Your task to perform on an android device: Go to network settings Image 0: 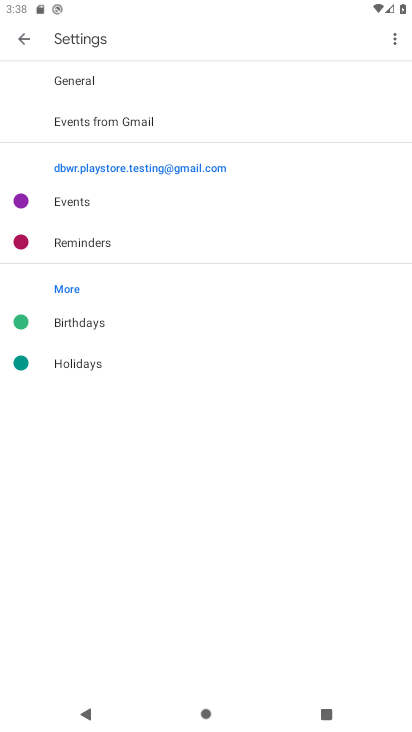
Step 0: press home button
Your task to perform on an android device: Go to network settings Image 1: 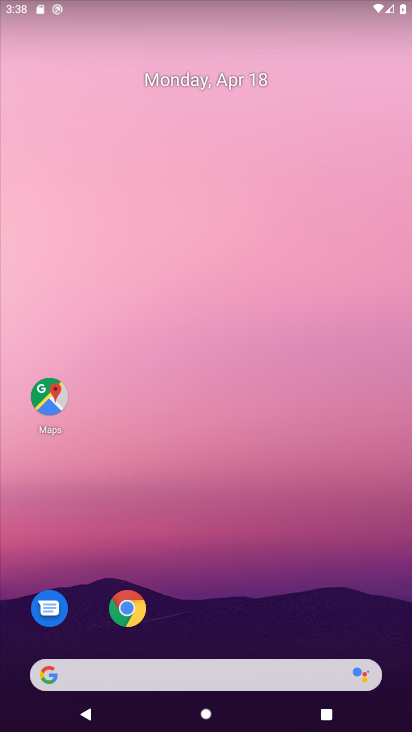
Step 1: drag from (332, 612) to (273, 138)
Your task to perform on an android device: Go to network settings Image 2: 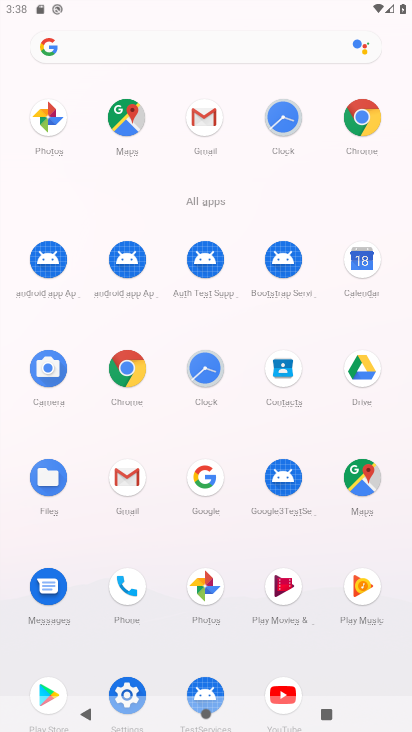
Step 2: click (119, 682)
Your task to perform on an android device: Go to network settings Image 3: 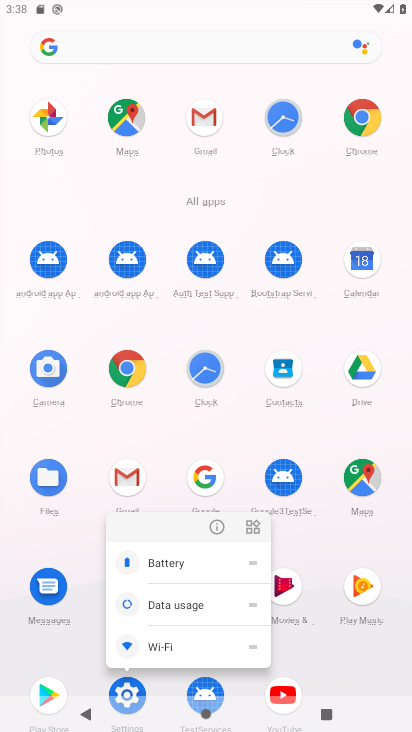
Step 3: click (121, 682)
Your task to perform on an android device: Go to network settings Image 4: 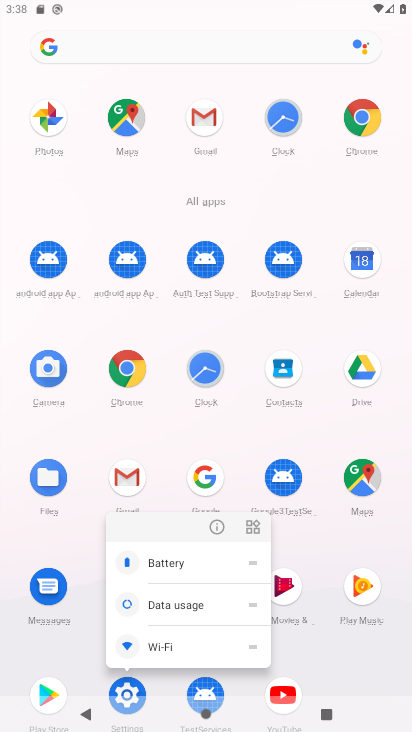
Step 4: click (121, 682)
Your task to perform on an android device: Go to network settings Image 5: 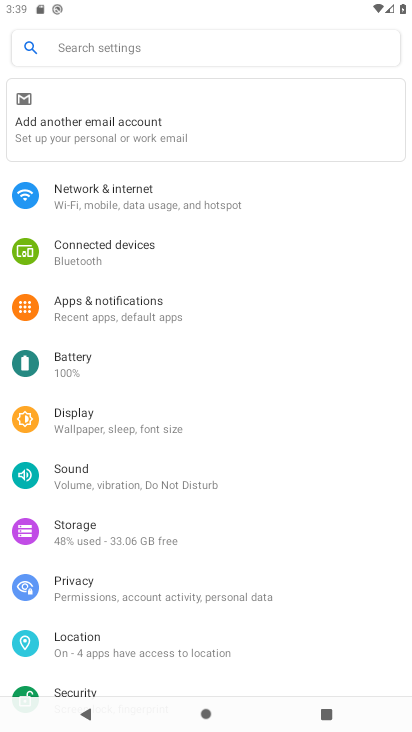
Step 5: click (96, 178)
Your task to perform on an android device: Go to network settings Image 6: 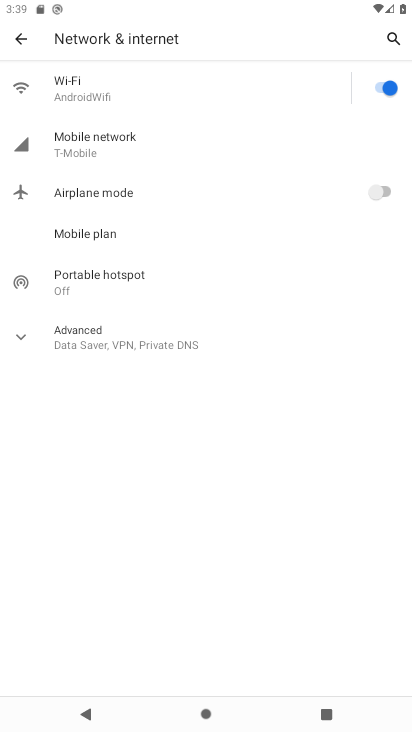
Step 6: click (84, 138)
Your task to perform on an android device: Go to network settings Image 7: 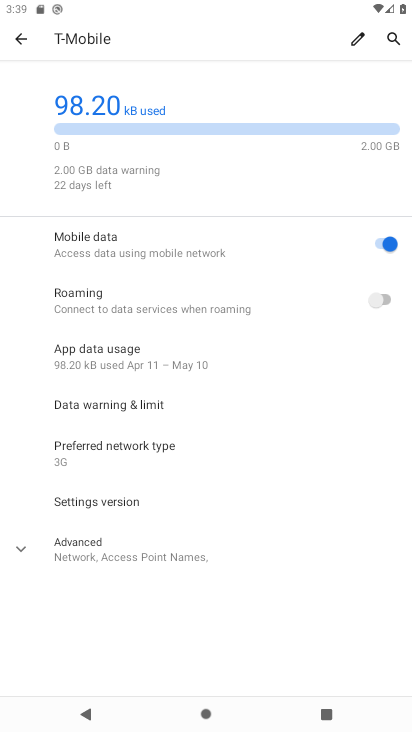
Step 7: task complete